Your task to perform on an android device: Go to sound settings Image 0: 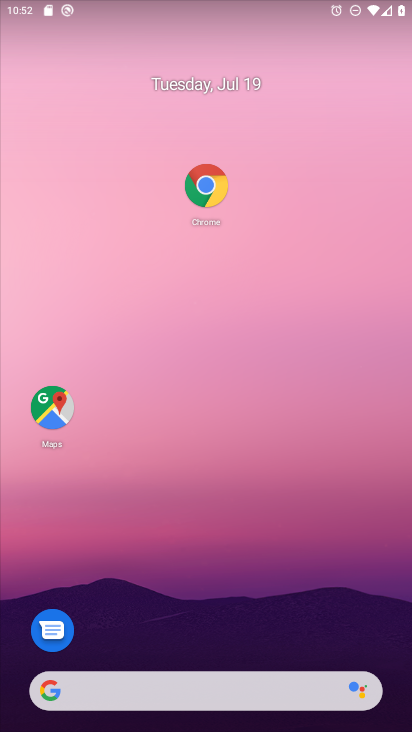
Step 0: drag from (251, 655) to (238, 40)
Your task to perform on an android device: Go to sound settings Image 1: 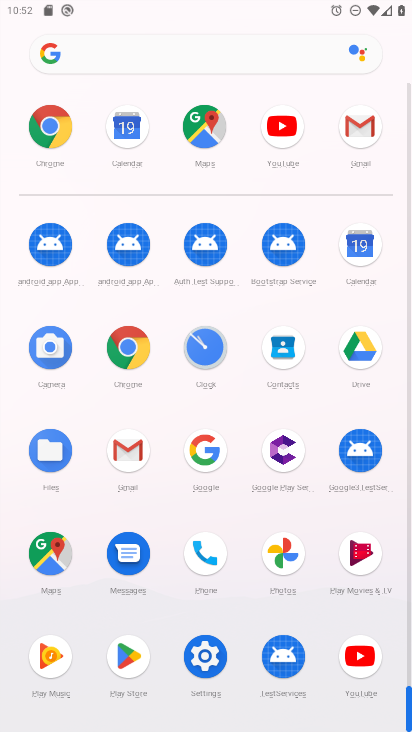
Step 1: click (207, 672)
Your task to perform on an android device: Go to sound settings Image 2: 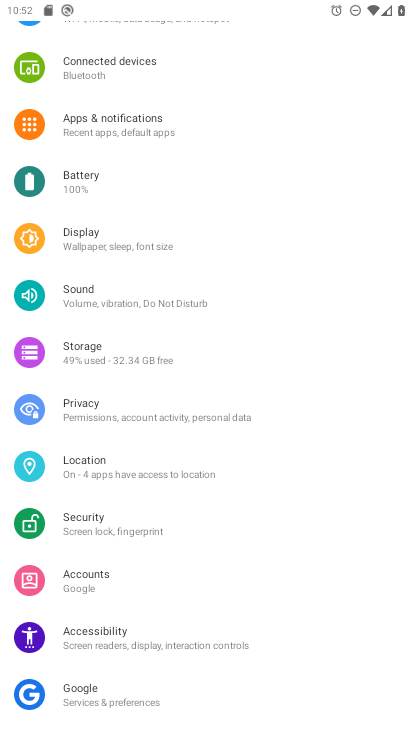
Step 2: click (141, 300)
Your task to perform on an android device: Go to sound settings Image 3: 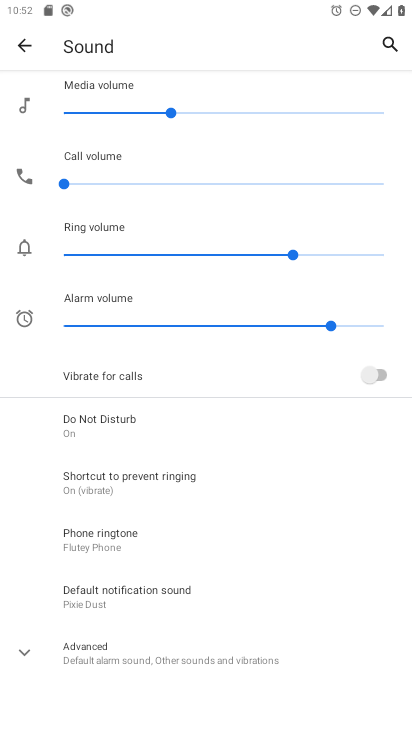
Step 3: task complete